Your task to perform on an android device: check data usage Image 0: 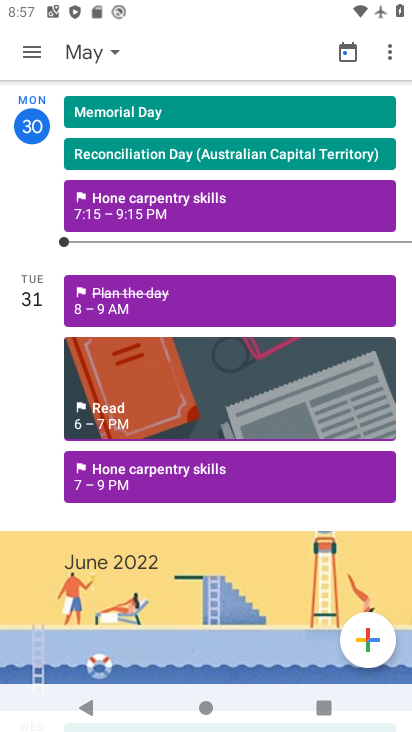
Step 0: press home button
Your task to perform on an android device: check data usage Image 1: 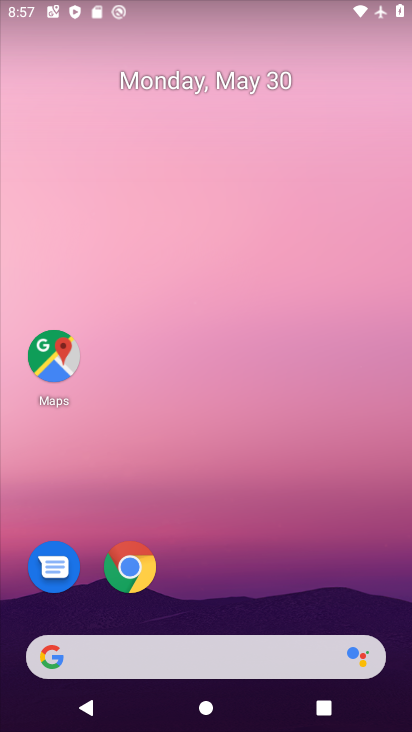
Step 1: drag from (232, 603) to (164, 22)
Your task to perform on an android device: check data usage Image 2: 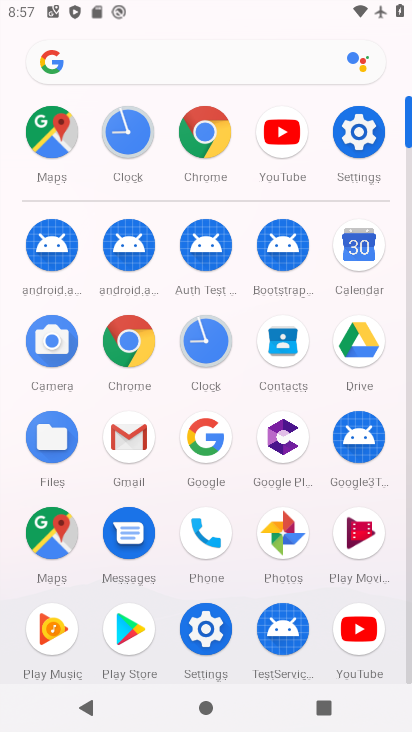
Step 2: click (361, 144)
Your task to perform on an android device: check data usage Image 3: 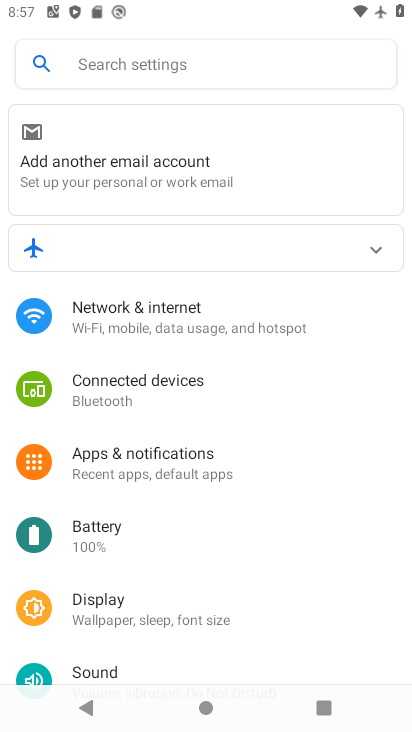
Step 3: click (262, 323)
Your task to perform on an android device: check data usage Image 4: 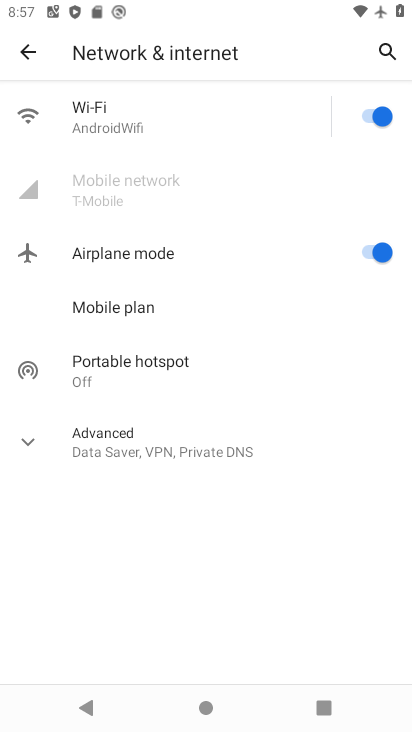
Step 4: click (93, 122)
Your task to perform on an android device: check data usage Image 5: 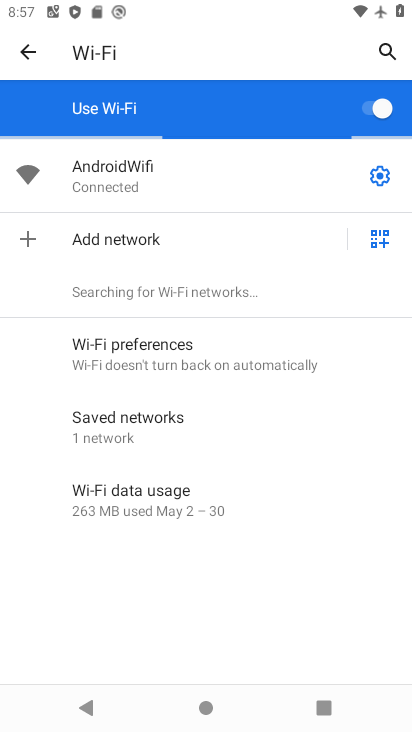
Step 5: click (115, 504)
Your task to perform on an android device: check data usage Image 6: 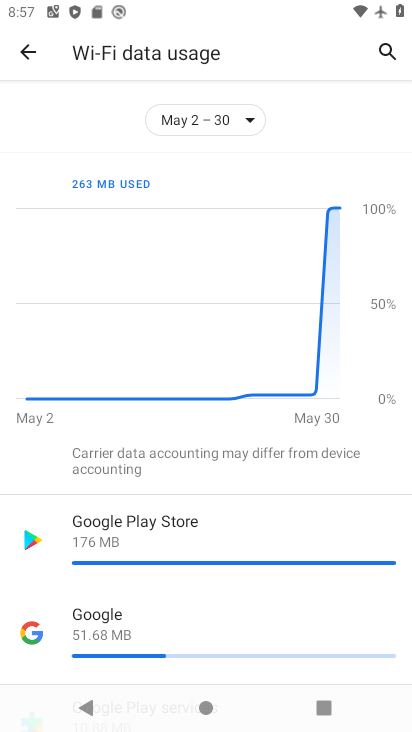
Step 6: task complete